Your task to perform on an android device: Go to Amazon Image 0: 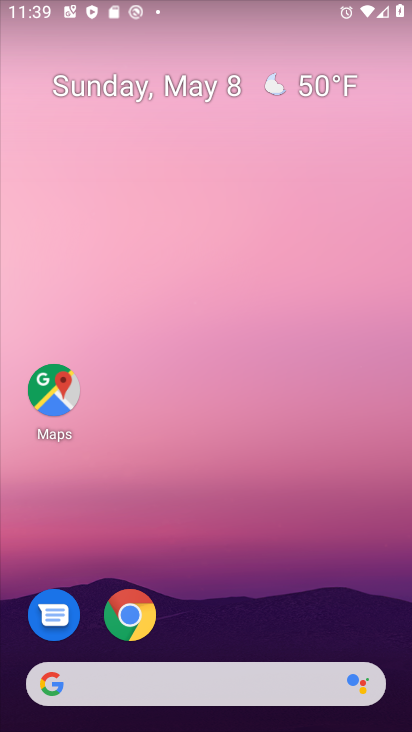
Step 0: drag from (293, 700) to (219, 323)
Your task to perform on an android device: Go to Amazon Image 1: 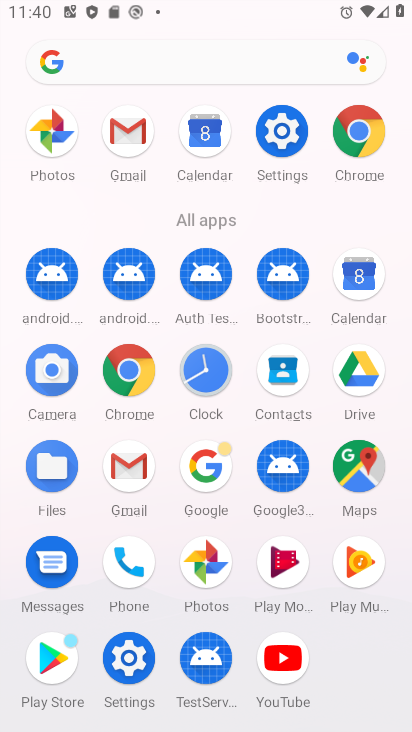
Step 1: click (353, 145)
Your task to perform on an android device: Go to Amazon Image 2: 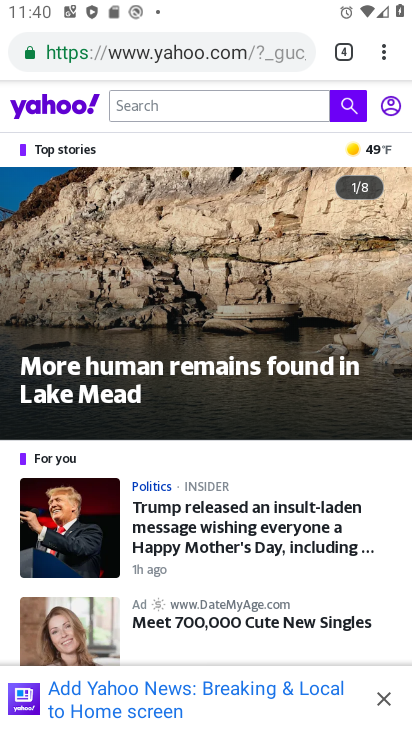
Step 2: click (345, 50)
Your task to perform on an android device: Go to Amazon Image 3: 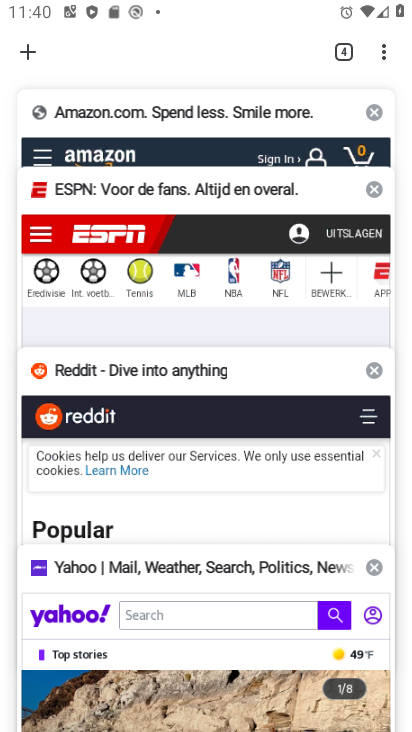
Step 3: click (31, 59)
Your task to perform on an android device: Go to Amazon Image 4: 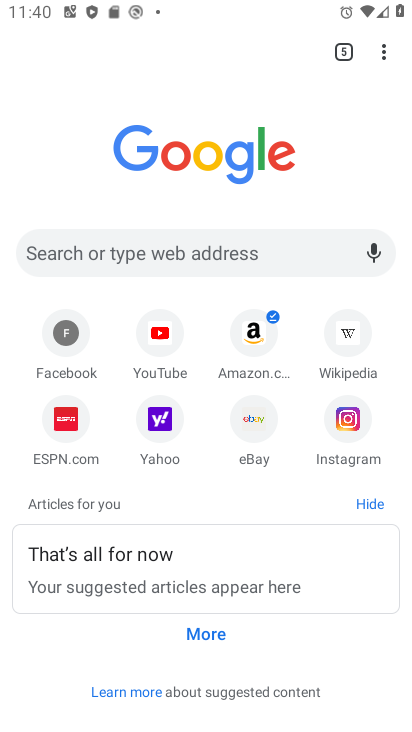
Step 4: click (260, 340)
Your task to perform on an android device: Go to Amazon Image 5: 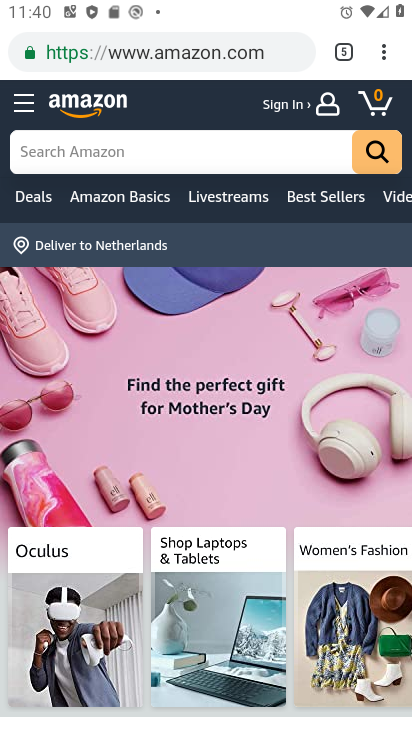
Step 5: task complete